Your task to perform on an android device: open app "Google Home" Image 0: 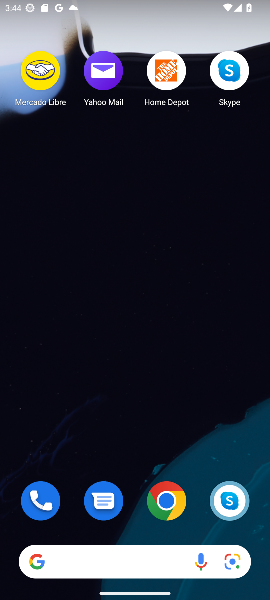
Step 0: press home button
Your task to perform on an android device: open app "Google Home" Image 1: 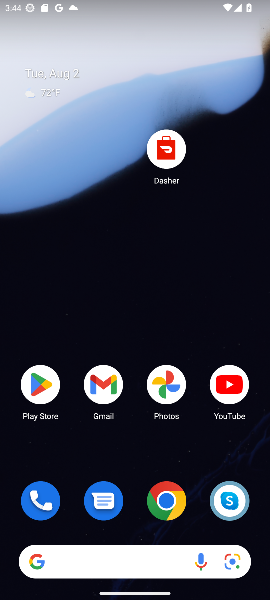
Step 1: click (38, 392)
Your task to perform on an android device: open app "Google Home" Image 2: 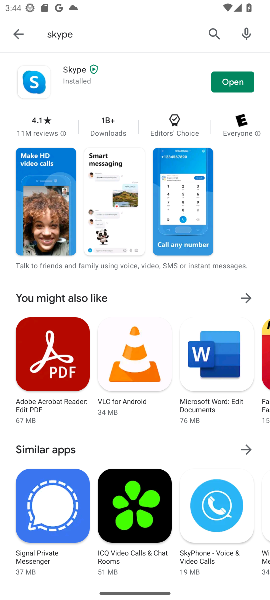
Step 2: click (213, 35)
Your task to perform on an android device: open app "Google Home" Image 3: 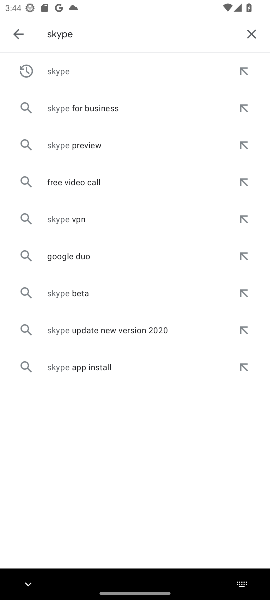
Step 3: click (245, 34)
Your task to perform on an android device: open app "Google Home" Image 4: 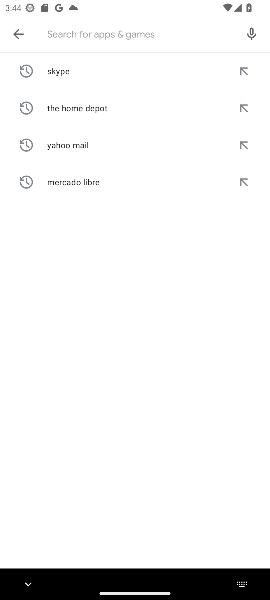
Step 4: type "Google Home"
Your task to perform on an android device: open app "Google Home" Image 5: 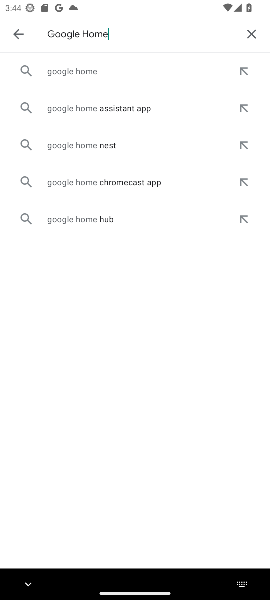
Step 5: click (56, 75)
Your task to perform on an android device: open app "Google Home" Image 6: 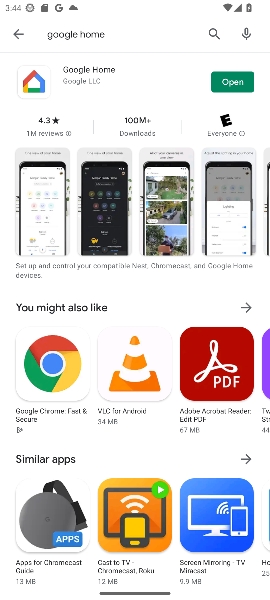
Step 6: click (221, 82)
Your task to perform on an android device: open app "Google Home" Image 7: 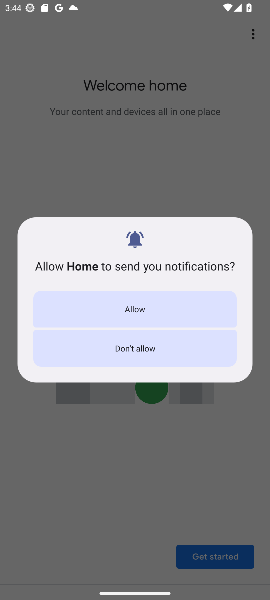
Step 7: task complete